Your task to perform on an android device: Open the web browser Image 0: 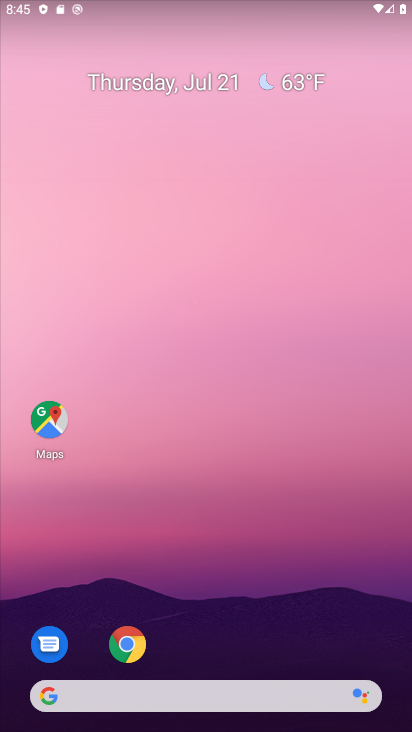
Step 0: press home button
Your task to perform on an android device: Open the web browser Image 1: 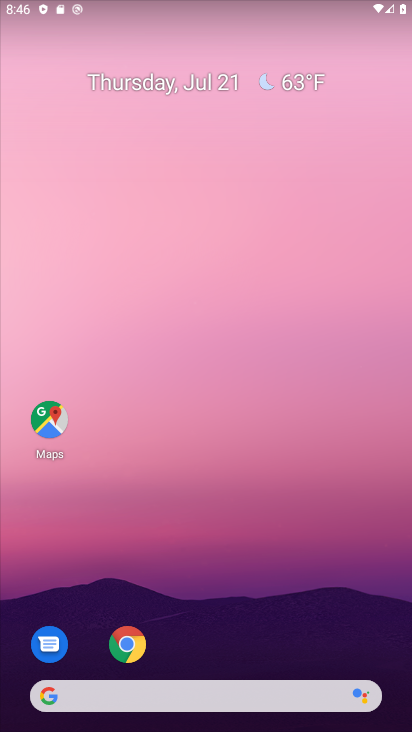
Step 1: click (125, 637)
Your task to perform on an android device: Open the web browser Image 2: 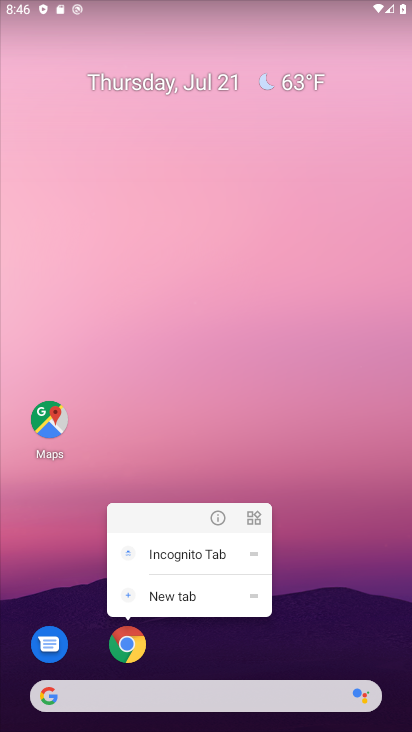
Step 2: click (127, 639)
Your task to perform on an android device: Open the web browser Image 3: 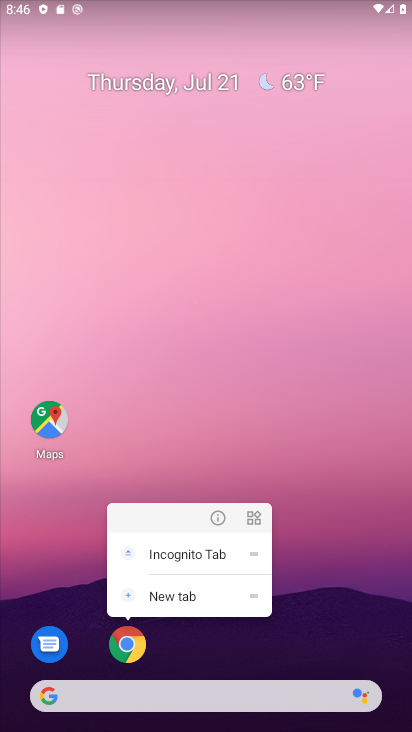
Step 3: click (240, 651)
Your task to perform on an android device: Open the web browser Image 4: 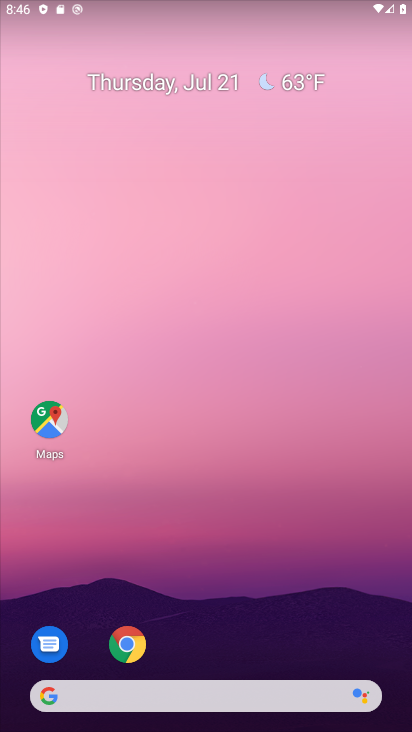
Step 4: drag from (284, 662) to (277, 200)
Your task to perform on an android device: Open the web browser Image 5: 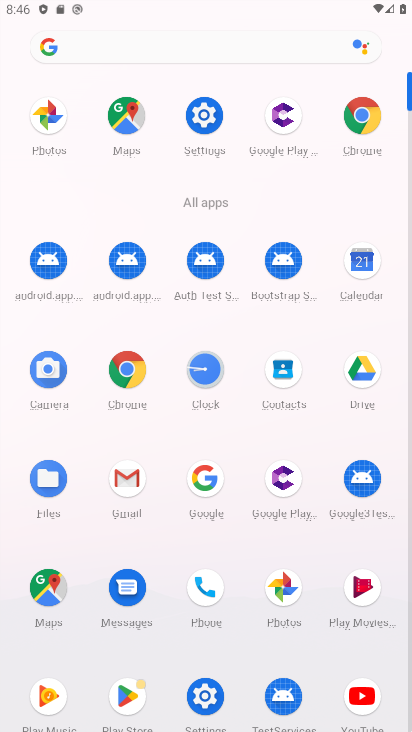
Step 5: click (361, 111)
Your task to perform on an android device: Open the web browser Image 6: 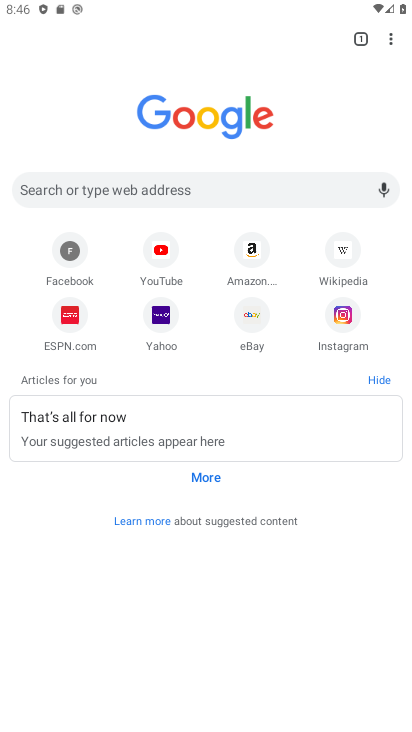
Step 6: task complete